Your task to perform on an android device: What's the weather? Image 0: 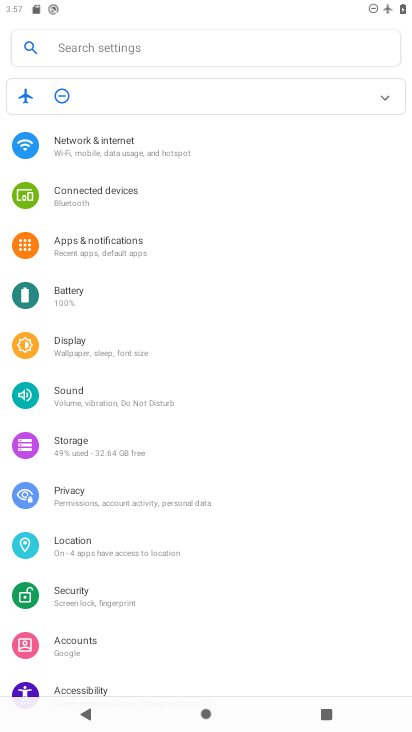
Step 0: press home button
Your task to perform on an android device: What's the weather? Image 1: 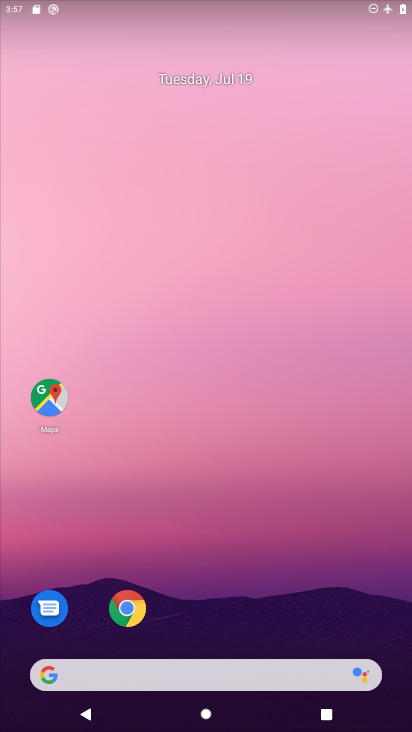
Step 1: drag from (313, 564) to (232, 98)
Your task to perform on an android device: What's the weather? Image 2: 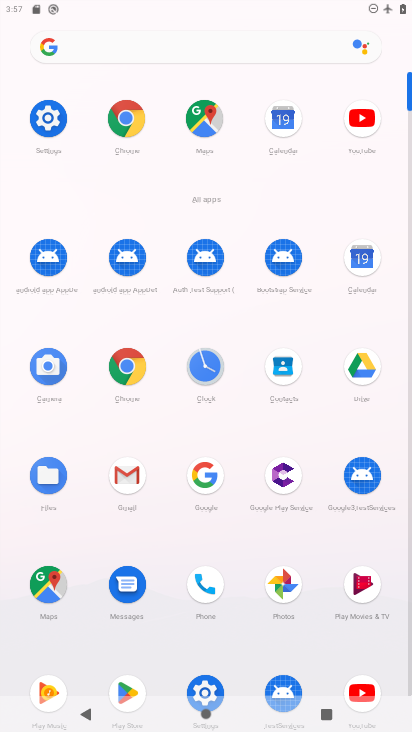
Step 2: click (127, 367)
Your task to perform on an android device: What's the weather? Image 3: 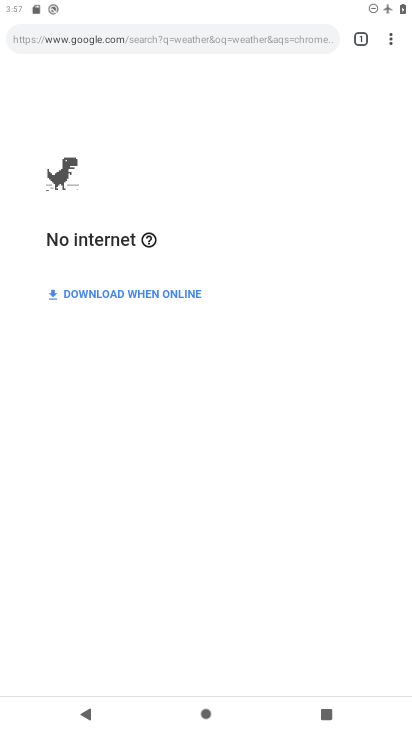
Step 3: click (242, 28)
Your task to perform on an android device: What's the weather? Image 4: 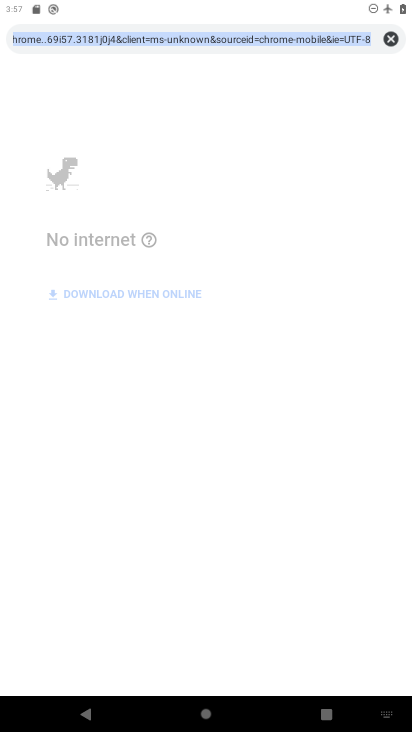
Step 4: type "weather"
Your task to perform on an android device: What's the weather? Image 5: 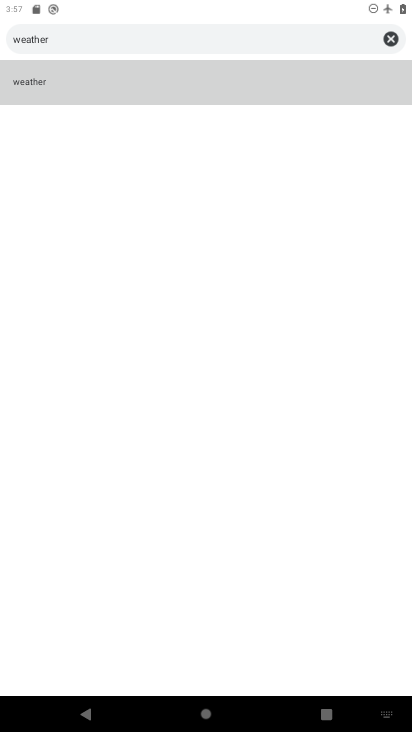
Step 5: click (55, 81)
Your task to perform on an android device: What's the weather? Image 6: 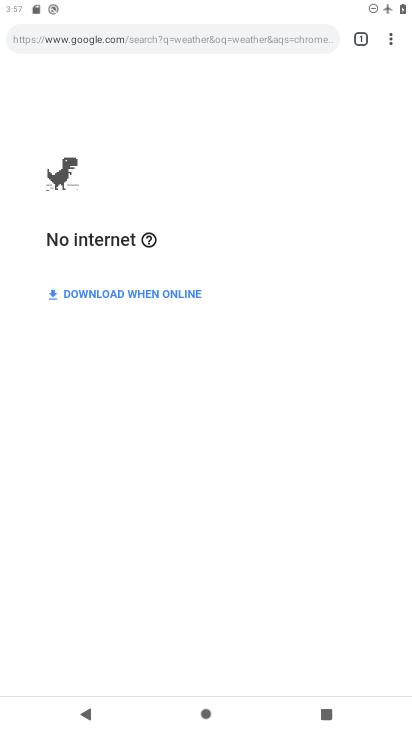
Step 6: task complete